Your task to perform on an android device: Set an alarm for 10am Image 0: 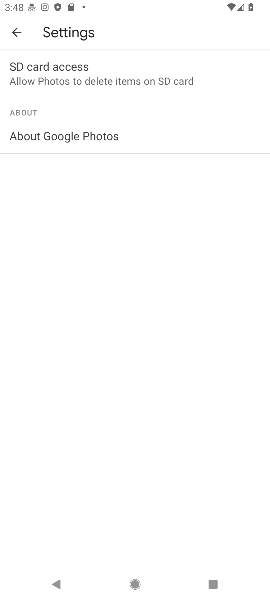
Step 0: press home button
Your task to perform on an android device: Set an alarm for 10am Image 1: 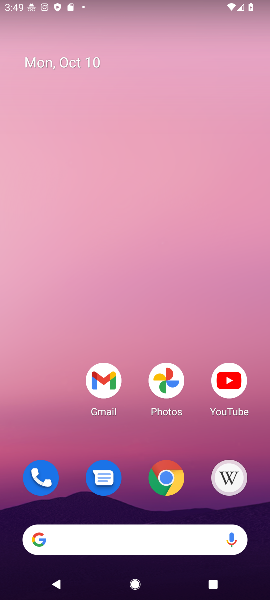
Step 1: drag from (138, 513) to (136, 428)
Your task to perform on an android device: Set an alarm for 10am Image 2: 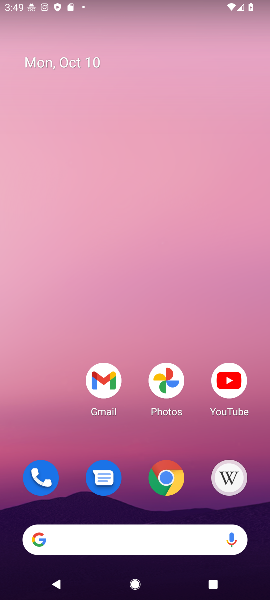
Step 2: drag from (122, 507) to (104, 36)
Your task to perform on an android device: Set an alarm for 10am Image 3: 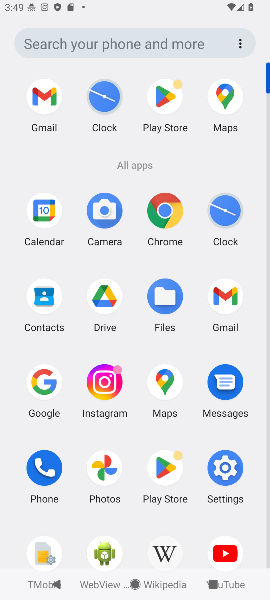
Step 3: click (97, 88)
Your task to perform on an android device: Set an alarm for 10am Image 4: 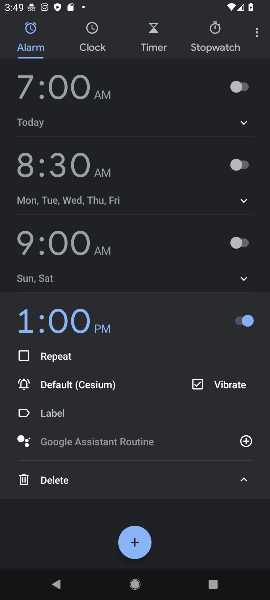
Step 4: click (134, 539)
Your task to perform on an android device: Set an alarm for 10am Image 5: 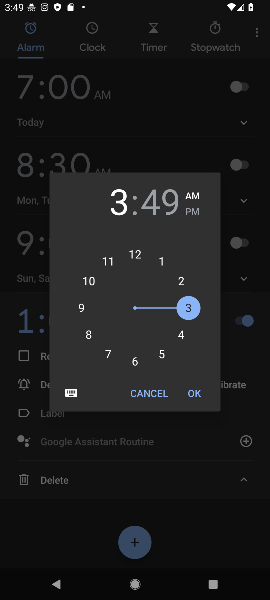
Step 5: click (91, 275)
Your task to perform on an android device: Set an alarm for 10am Image 6: 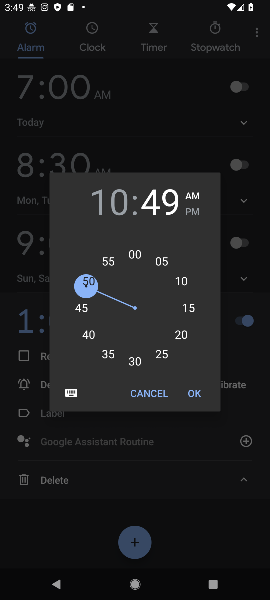
Step 6: click (133, 254)
Your task to perform on an android device: Set an alarm for 10am Image 7: 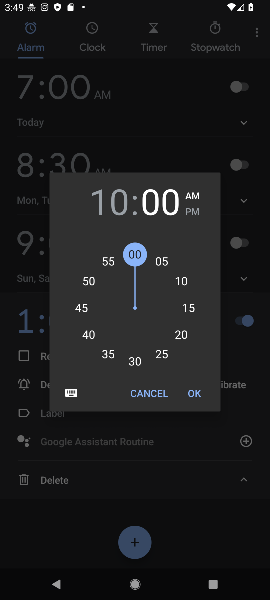
Step 7: click (203, 397)
Your task to perform on an android device: Set an alarm for 10am Image 8: 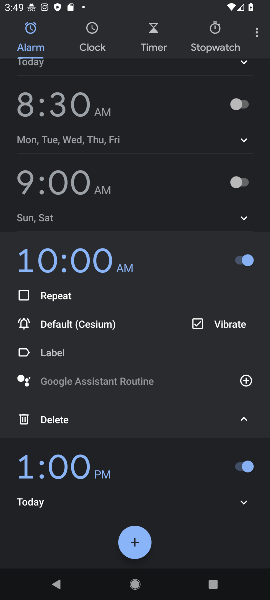
Step 8: task complete